Your task to perform on an android device: change the upload size in google photos Image 0: 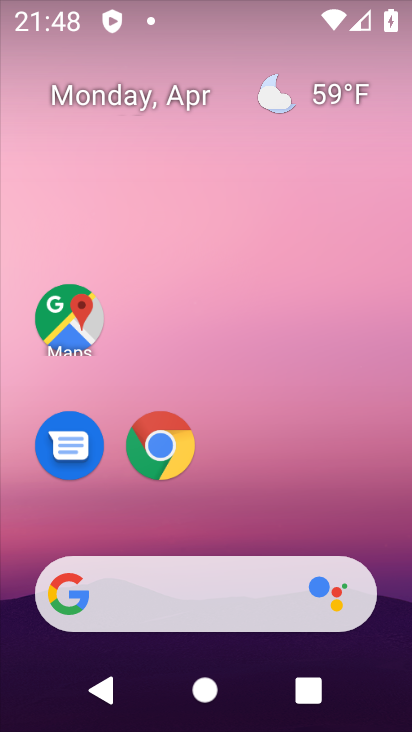
Step 0: drag from (290, 488) to (340, 95)
Your task to perform on an android device: change the upload size in google photos Image 1: 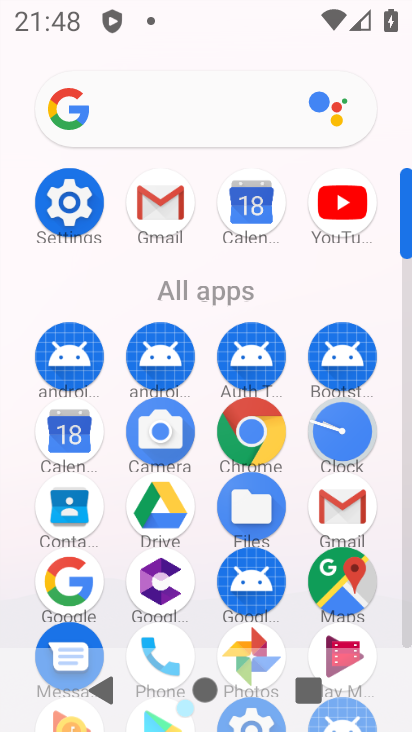
Step 1: drag from (298, 450) to (300, 184)
Your task to perform on an android device: change the upload size in google photos Image 2: 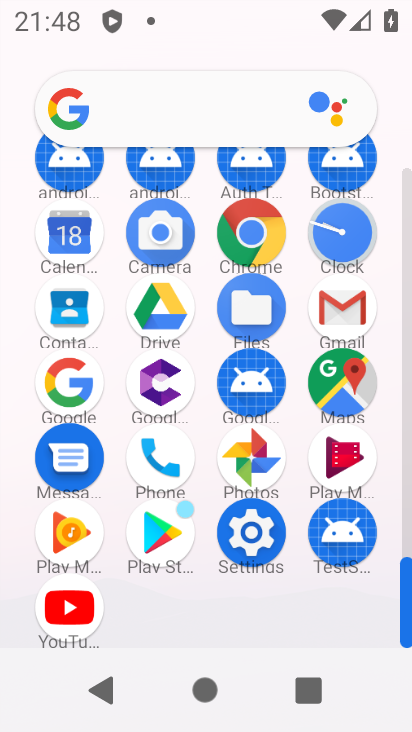
Step 2: click (250, 441)
Your task to perform on an android device: change the upload size in google photos Image 3: 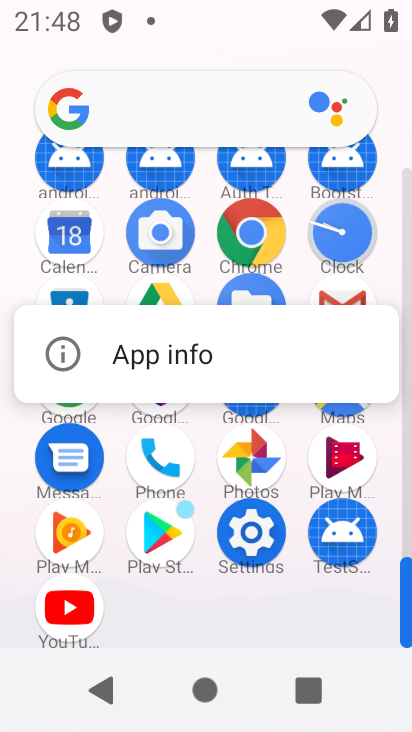
Step 3: click (250, 438)
Your task to perform on an android device: change the upload size in google photos Image 4: 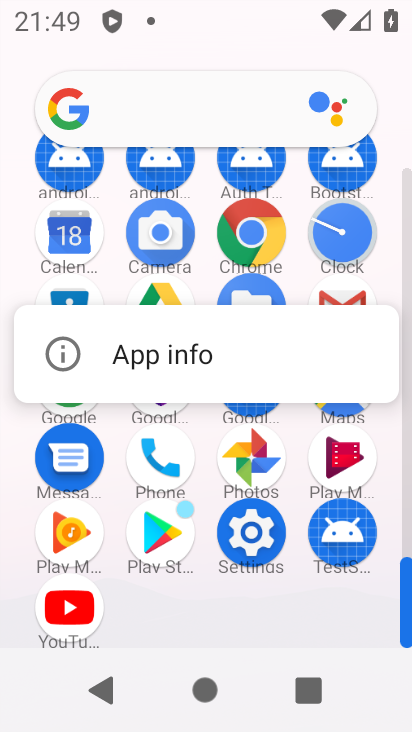
Step 4: click (250, 439)
Your task to perform on an android device: change the upload size in google photos Image 5: 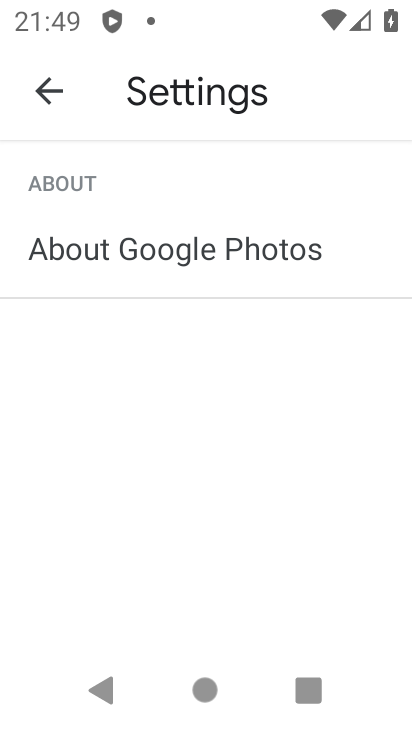
Step 5: click (59, 82)
Your task to perform on an android device: change the upload size in google photos Image 6: 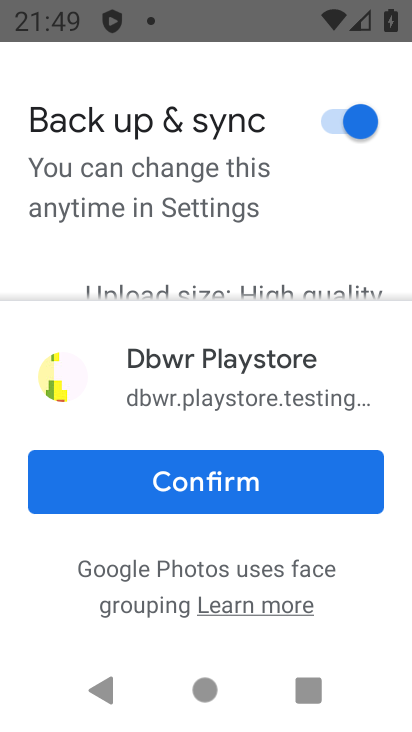
Step 6: click (193, 476)
Your task to perform on an android device: change the upload size in google photos Image 7: 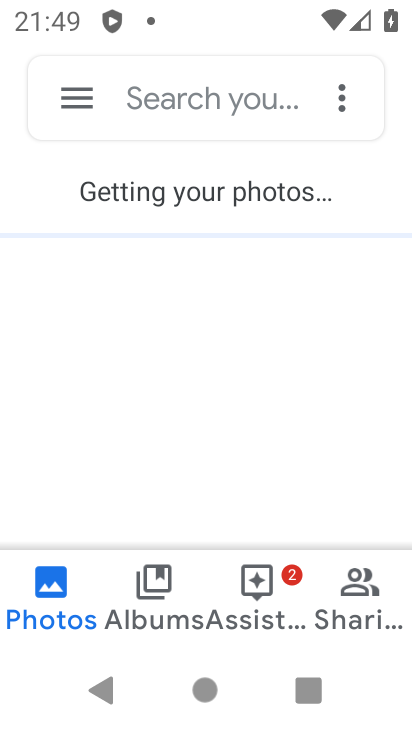
Step 7: click (77, 89)
Your task to perform on an android device: change the upload size in google photos Image 8: 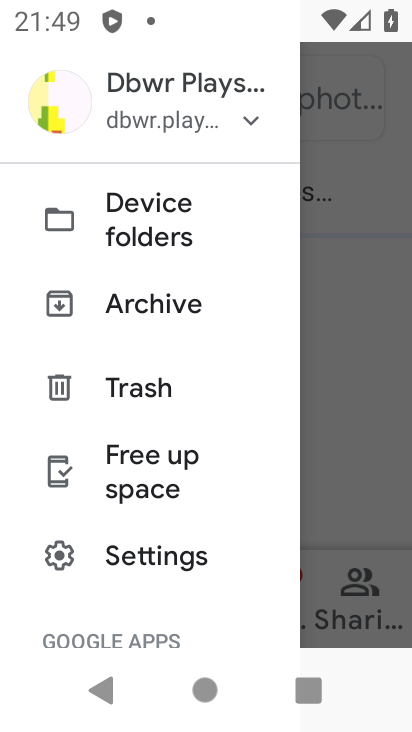
Step 8: click (187, 558)
Your task to perform on an android device: change the upload size in google photos Image 9: 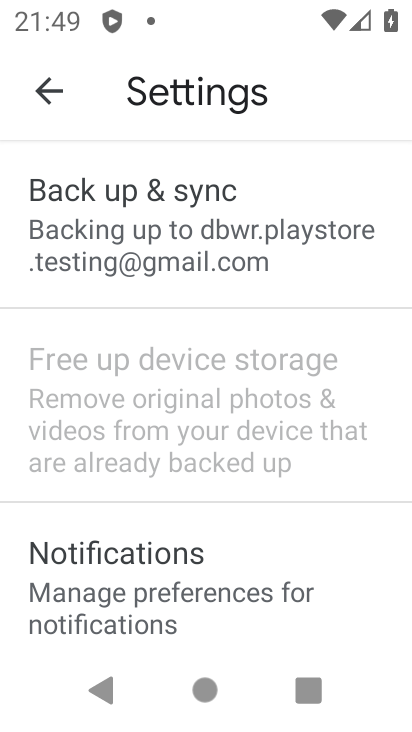
Step 9: click (186, 224)
Your task to perform on an android device: change the upload size in google photos Image 10: 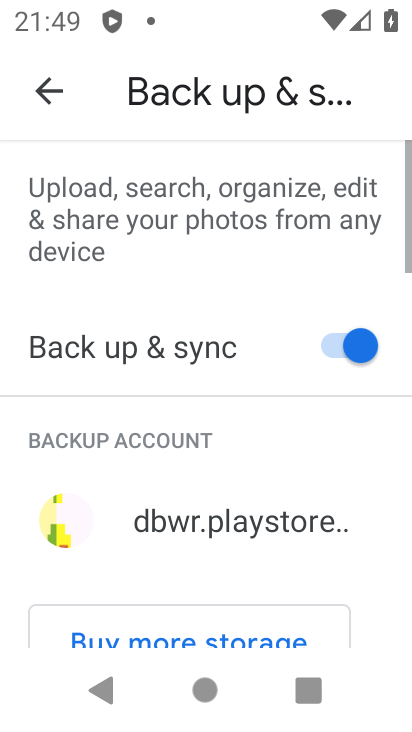
Step 10: drag from (231, 455) to (254, 158)
Your task to perform on an android device: change the upload size in google photos Image 11: 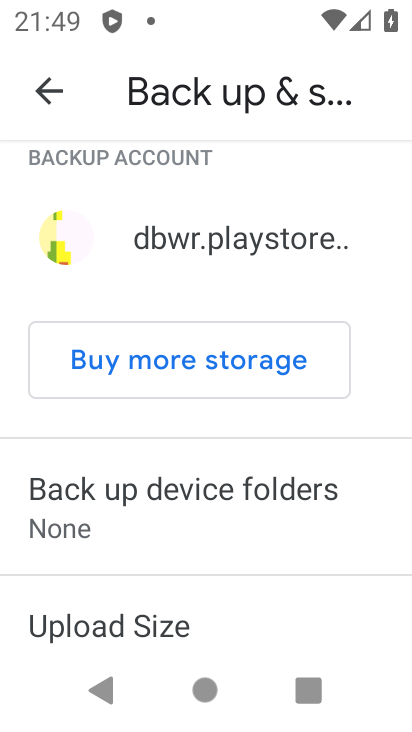
Step 11: drag from (229, 497) to (250, 191)
Your task to perform on an android device: change the upload size in google photos Image 12: 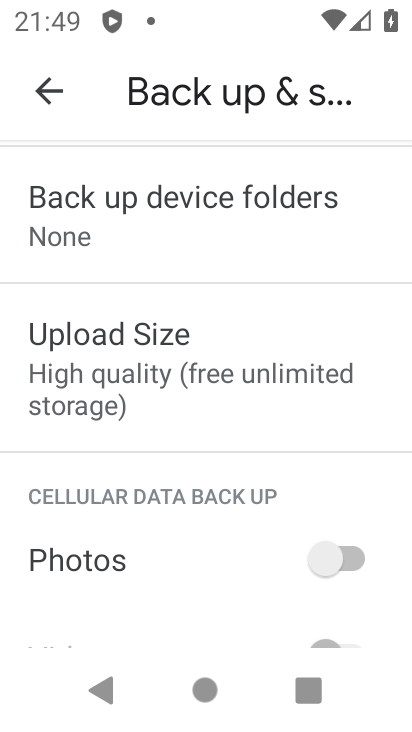
Step 12: click (209, 356)
Your task to perform on an android device: change the upload size in google photos Image 13: 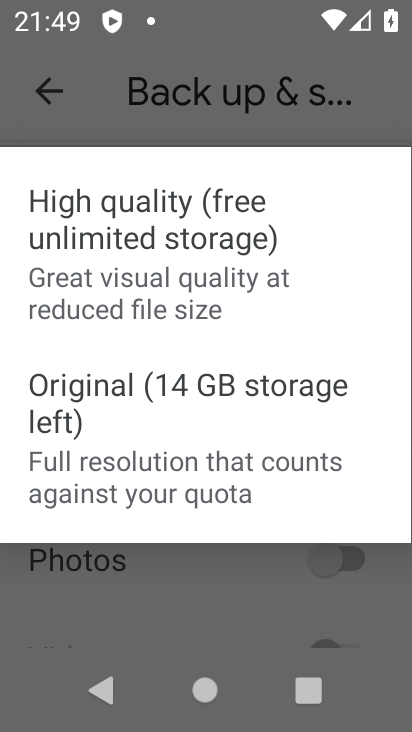
Step 13: click (207, 436)
Your task to perform on an android device: change the upload size in google photos Image 14: 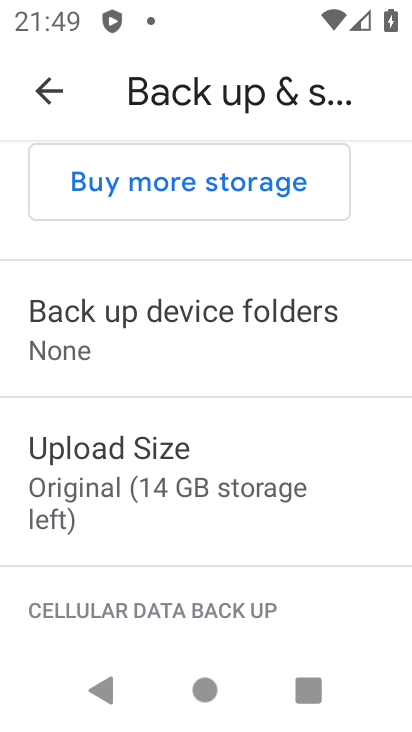
Step 14: task complete